Your task to perform on an android device: turn on wifi Image 0: 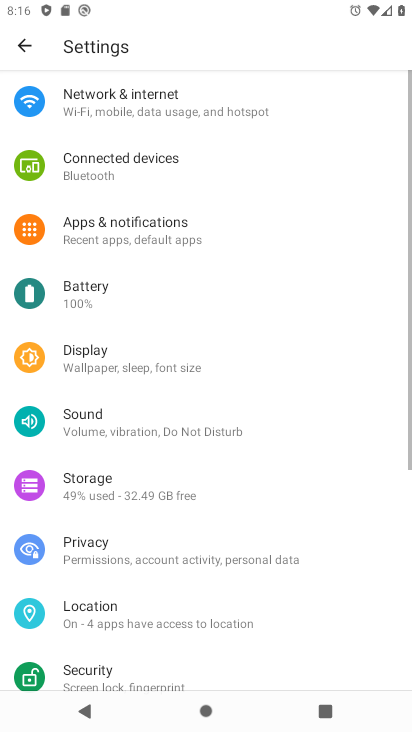
Step 0: press back button
Your task to perform on an android device: turn on wifi Image 1: 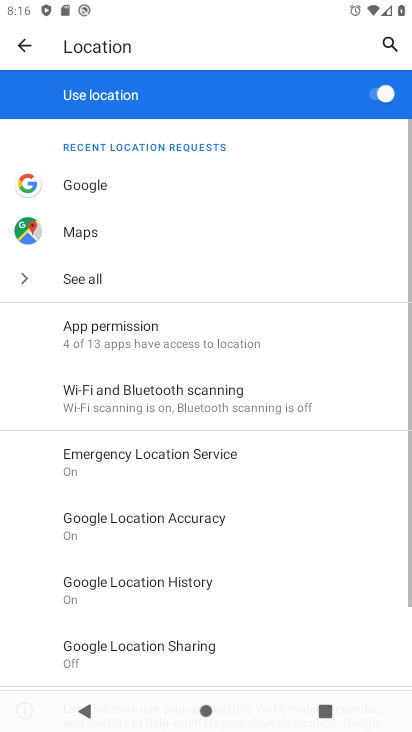
Step 1: click (24, 36)
Your task to perform on an android device: turn on wifi Image 2: 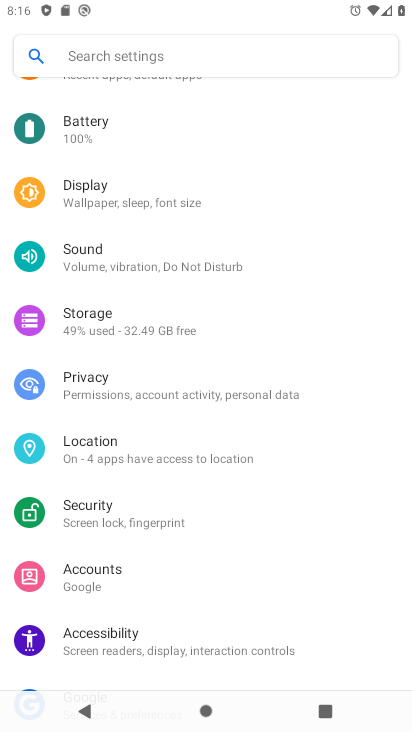
Step 2: press home button
Your task to perform on an android device: turn on wifi Image 3: 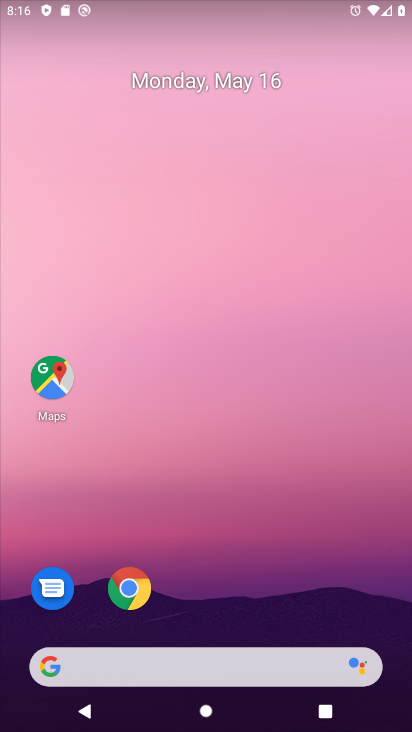
Step 3: drag from (279, 676) to (168, 327)
Your task to perform on an android device: turn on wifi Image 4: 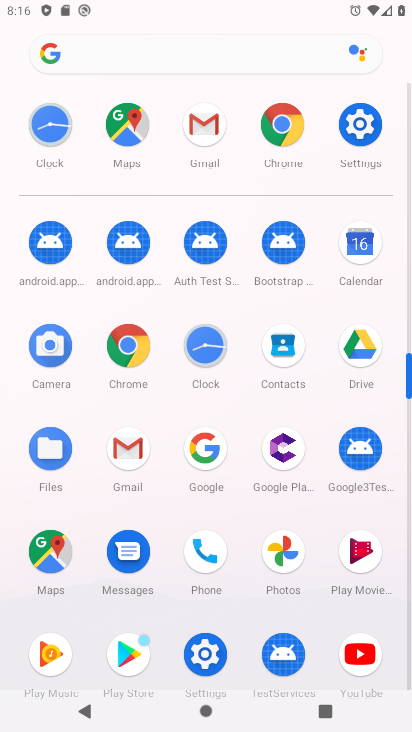
Step 4: click (51, 540)
Your task to perform on an android device: turn on wifi Image 5: 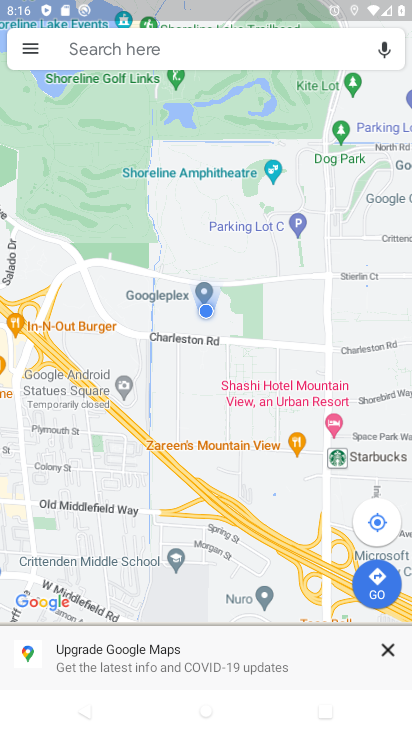
Step 5: press back button
Your task to perform on an android device: turn on wifi Image 6: 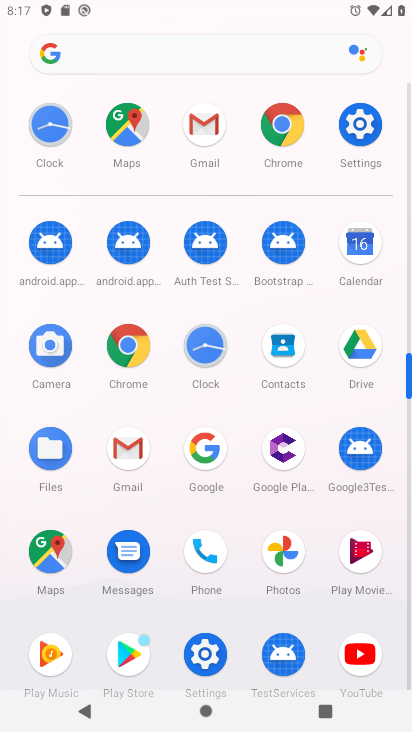
Step 6: click (359, 137)
Your task to perform on an android device: turn on wifi Image 7: 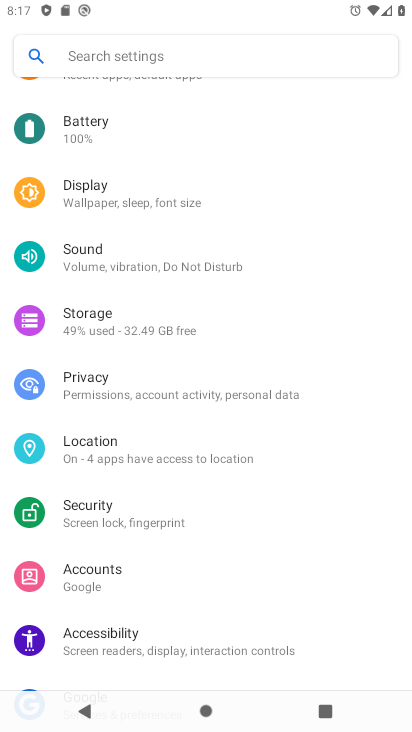
Step 7: drag from (95, 175) to (69, 670)
Your task to perform on an android device: turn on wifi Image 8: 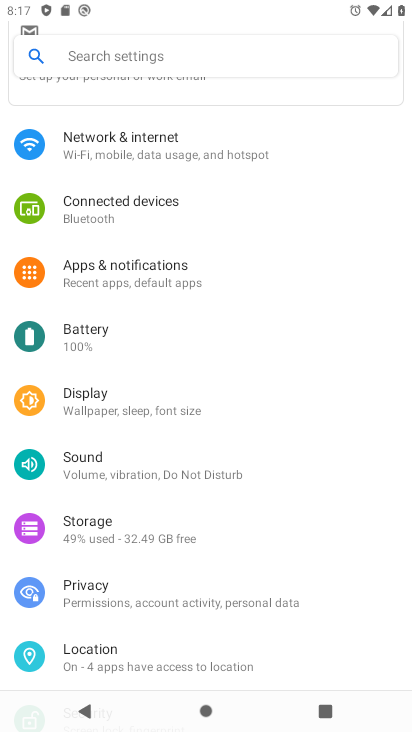
Step 8: click (137, 147)
Your task to perform on an android device: turn on wifi Image 9: 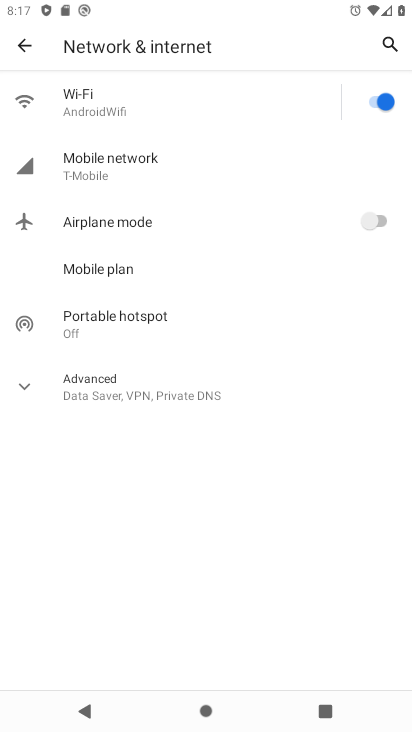
Step 9: task complete